Your task to perform on an android device: manage bookmarks in the chrome app Image 0: 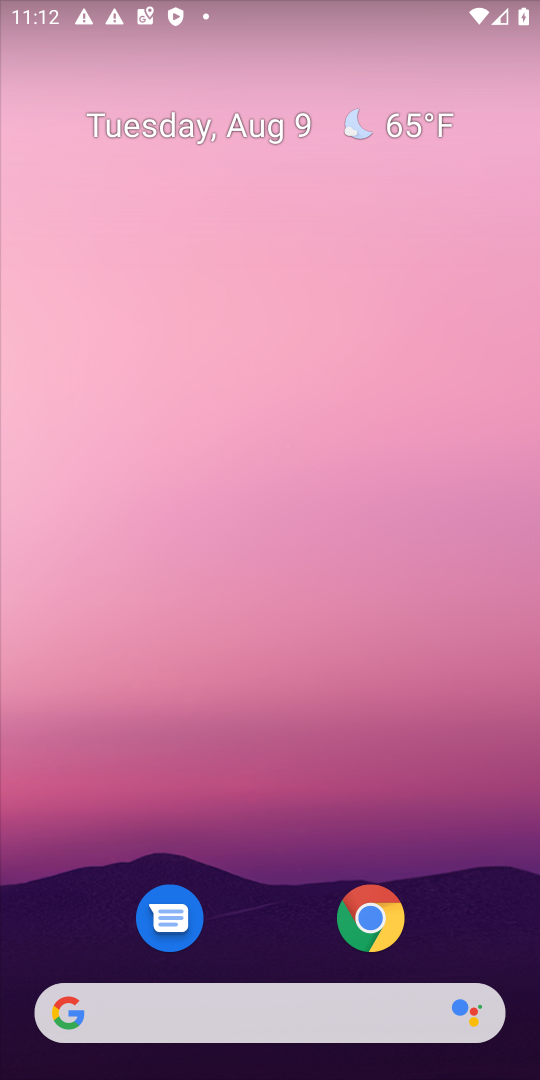
Step 0: drag from (281, 915) to (195, 0)
Your task to perform on an android device: manage bookmarks in the chrome app Image 1: 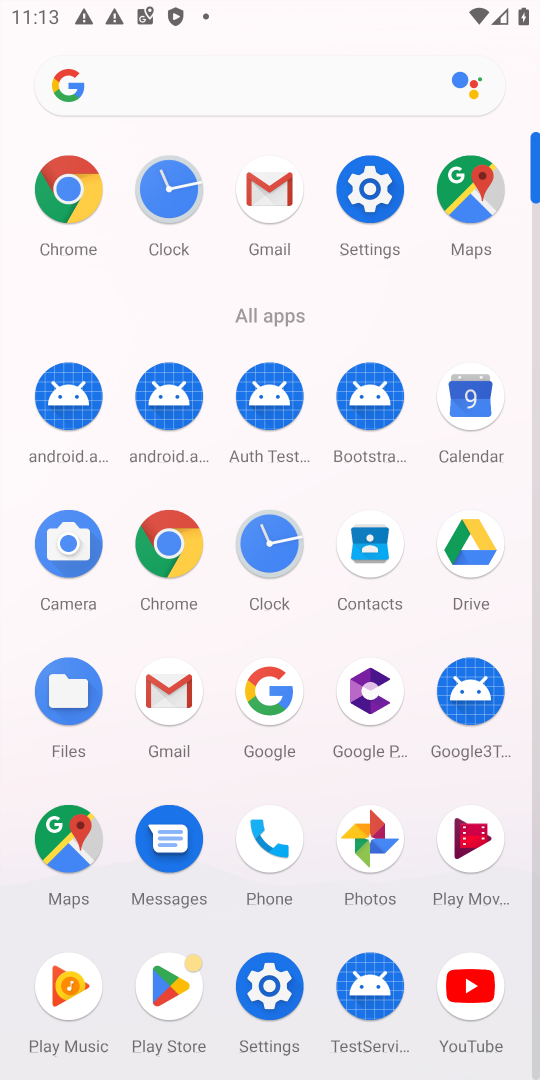
Step 1: click (169, 549)
Your task to perform on an android device: manage bookmarks in the chrome app Image 2: 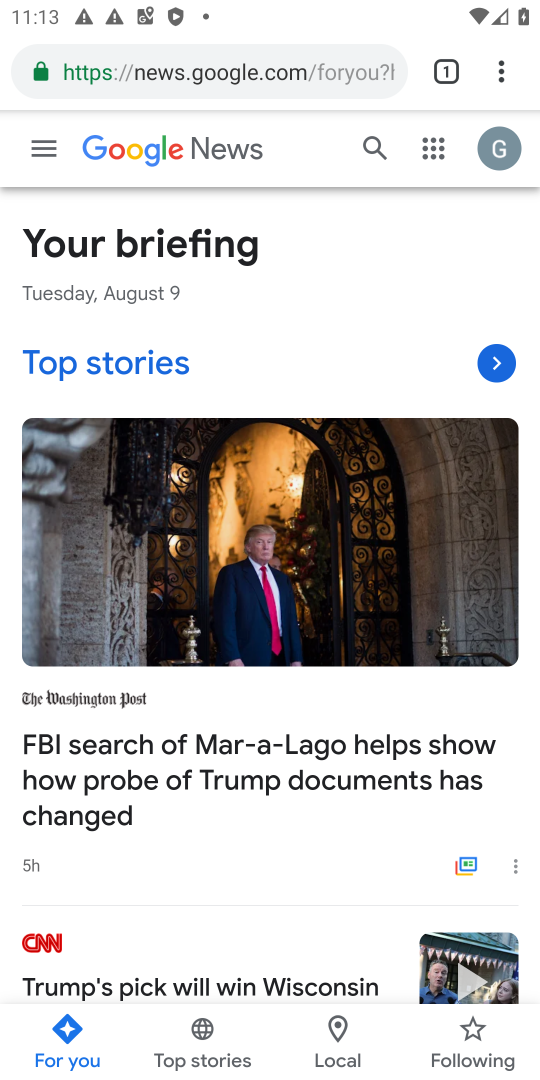
Step 2: drag from (509, 67) to (244, 352)
Your task to perform on an android device: manage bookmarks in the chrome app Image 3: 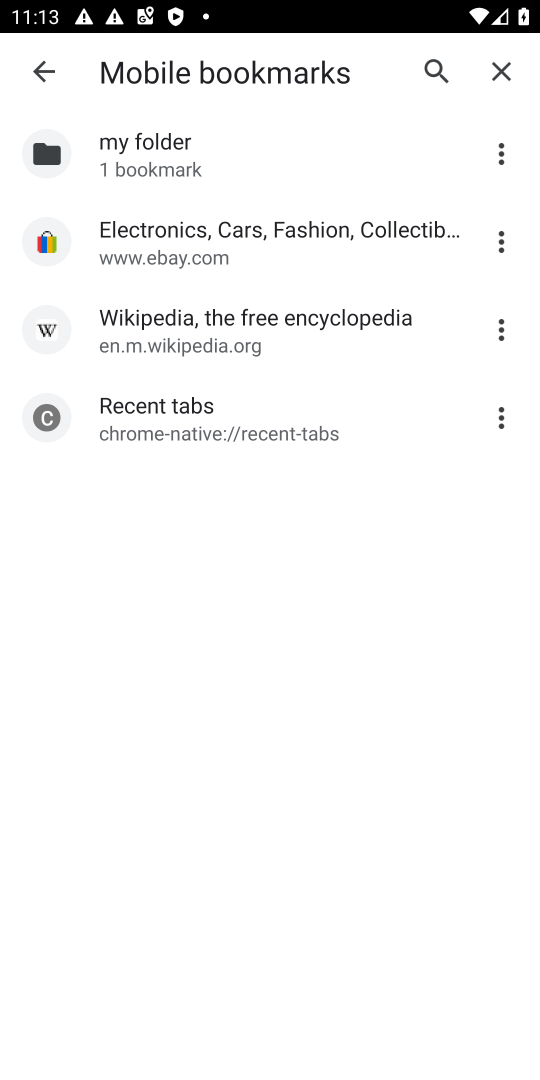
Step 3: click (500, 232)
Your task to perform on an android device: manage bookmarks in the chrome app Image 4: 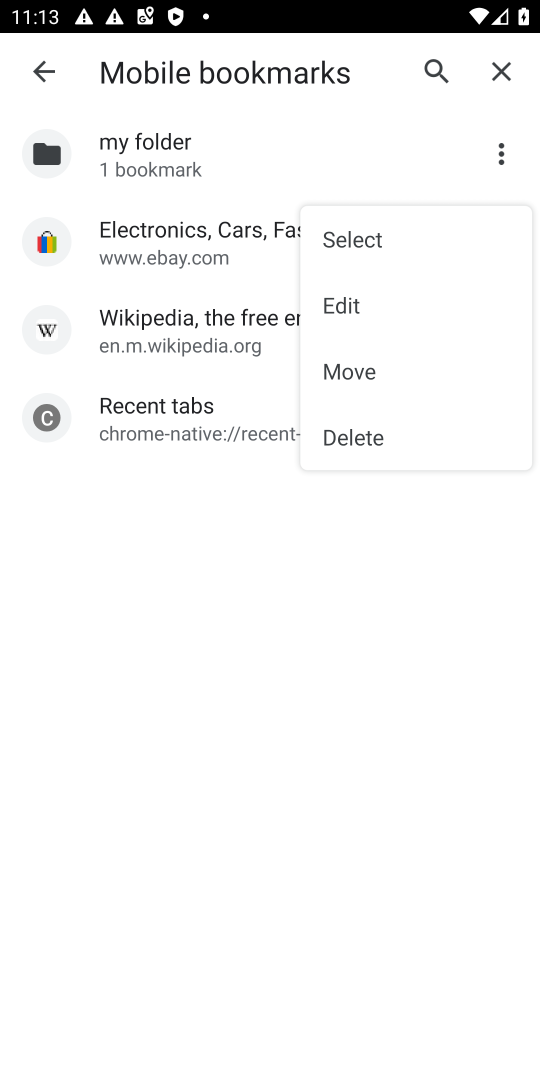
Step 4: click (367, 316)
Your task to perform on an android device: manage bookmarks in the chrome app Image 5: 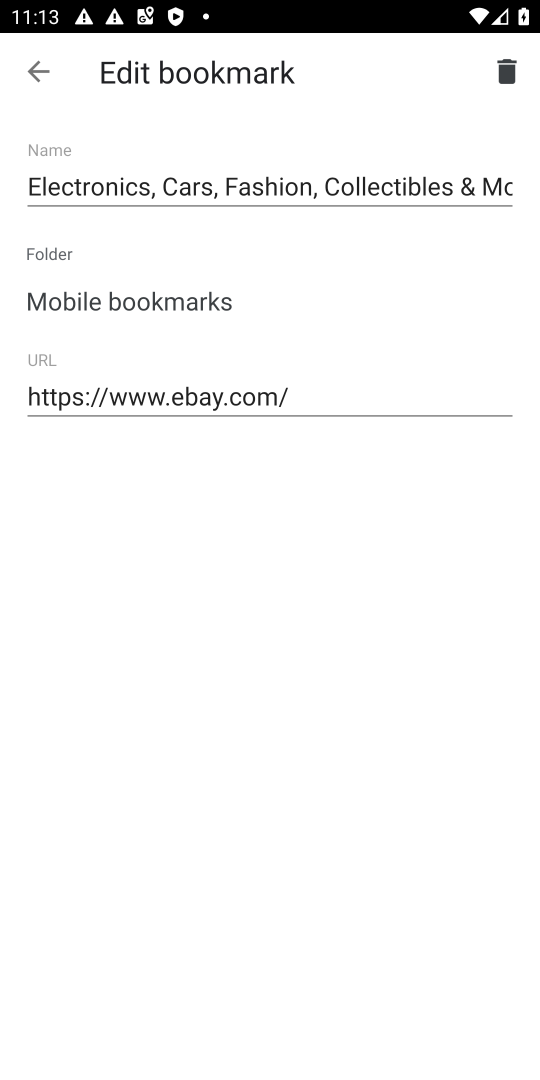
Step 5: click (168, 184)
Your task to perform on an android device: manage bookmarks in the chrome app Image 6: 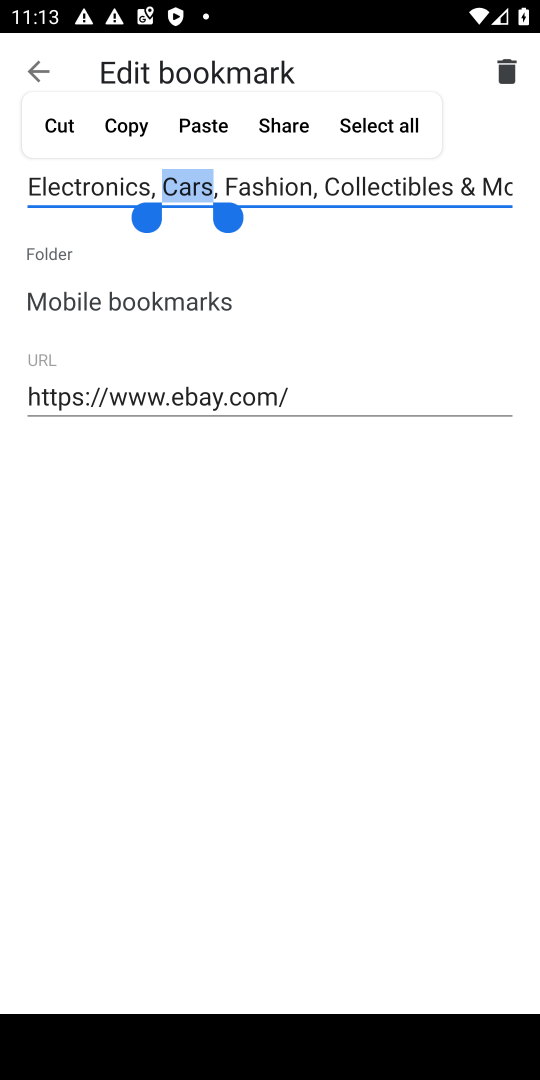
Step 6: click (80, 124)
Your task to perform on an android device: manage bookmarks in the chrome app Image 7: 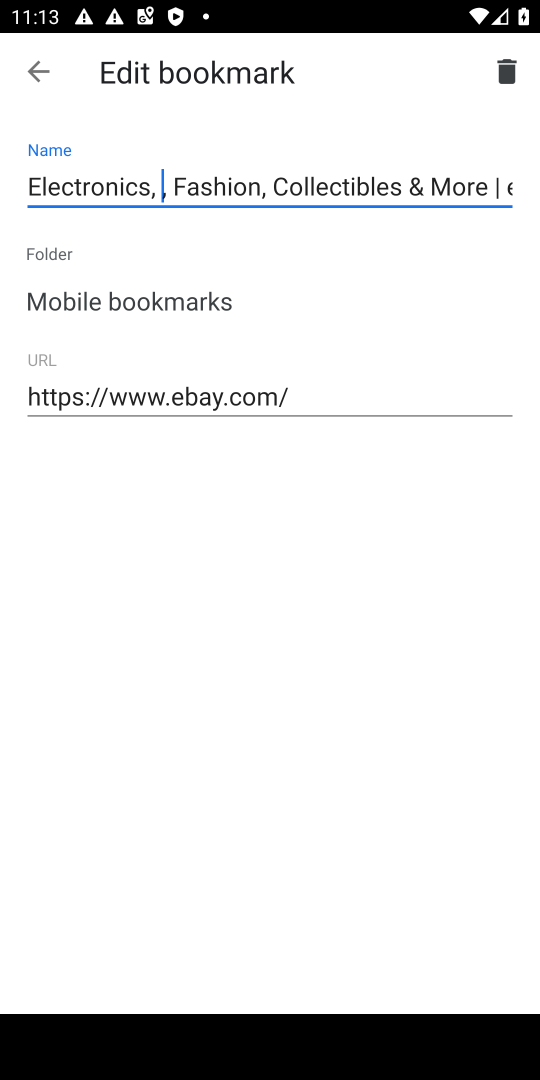
Step 7: click (39, 61)
Your task to perform on an android device: manage bookmarks in the chrome app Image 8: 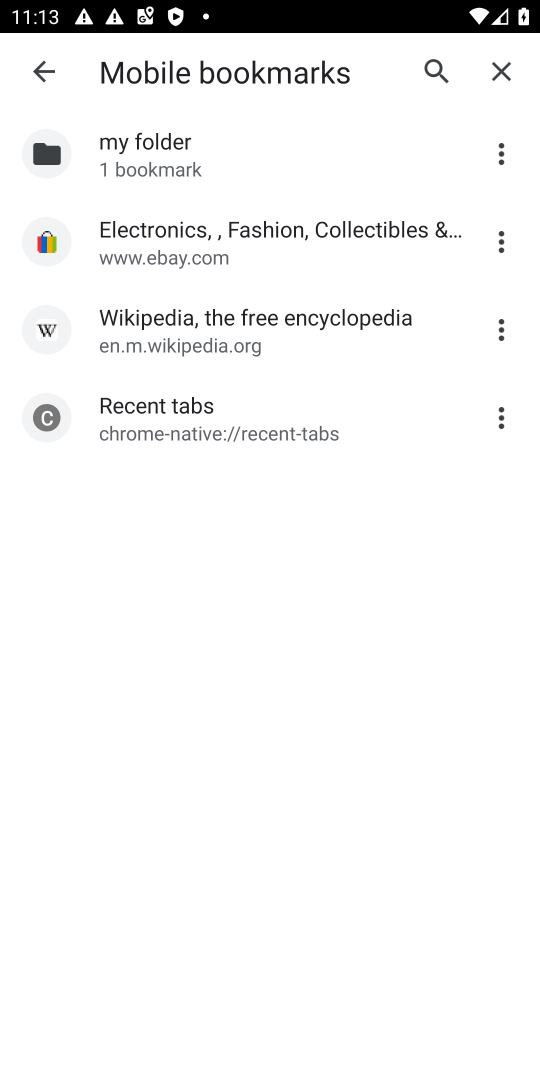
Step 8: task complete